Your task to perform on an android device: Open Youtube and go to the subscriptions tab Image 0: 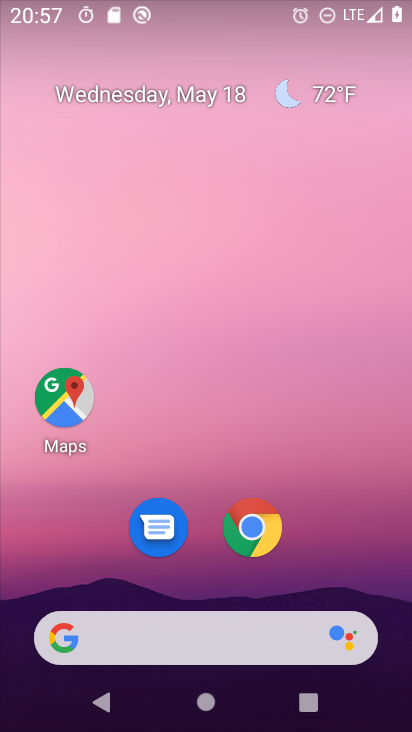
Step 0: drag from (410, 424) to (410, 75)
Your task to perform on an android device: Open Youtube and go to the subscriptions tab Image 1: 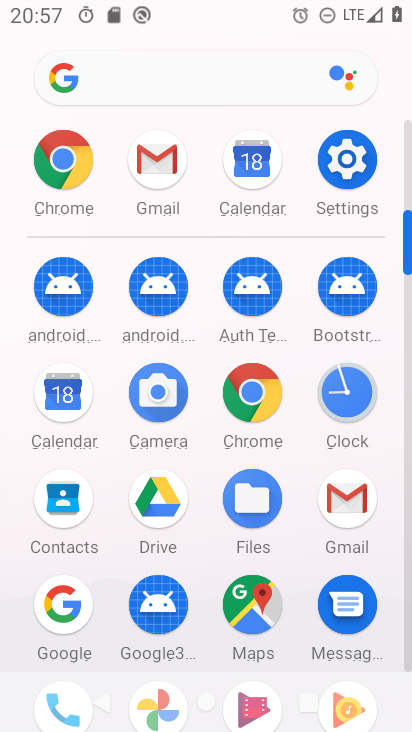
Step 1: drag from (410, 216) to (411, 89)
Your task to perform on an android device: Open Youtube and go to the subscriptions tab Image 2: 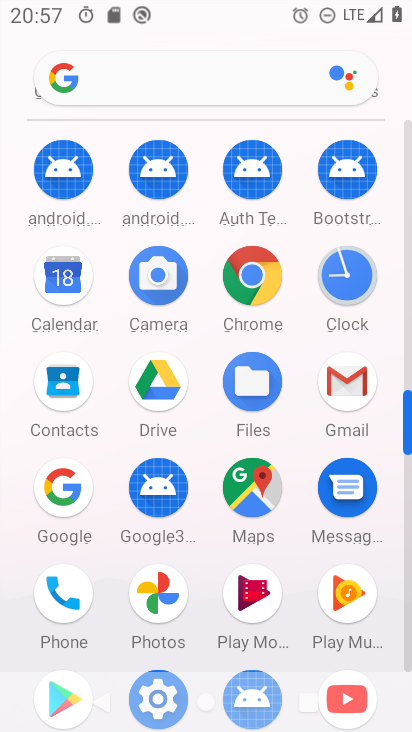
Step 2: drag from (405, 399) to (410, 315)
Your task to perform on an android device: Open Youtube and go to the subscriptions tab Image 3: 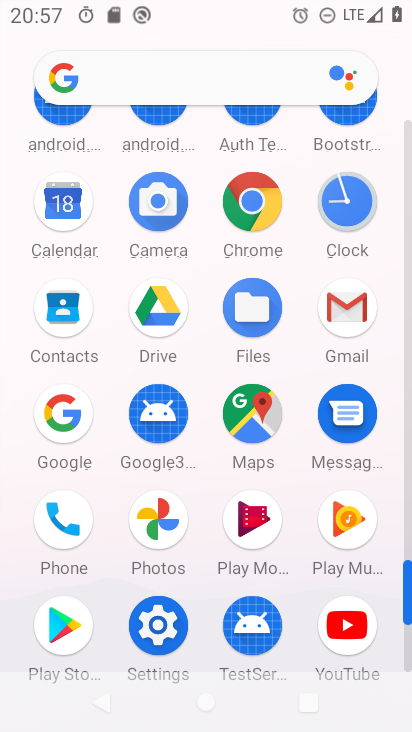
Step 3: click (341, 650)
Your task to perform on an android device: Open Youtube and go to the subscriptions tab Image 4: 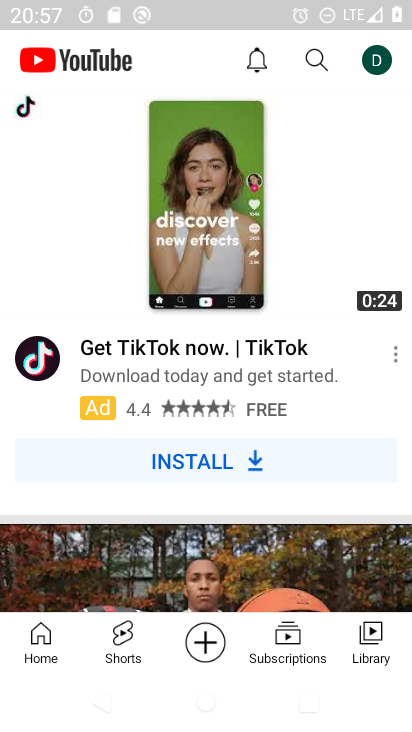
Step 4: click (282, 642)
Your task to perform on an android device: Open Youtube and go to the subscriptions tab Image 5: 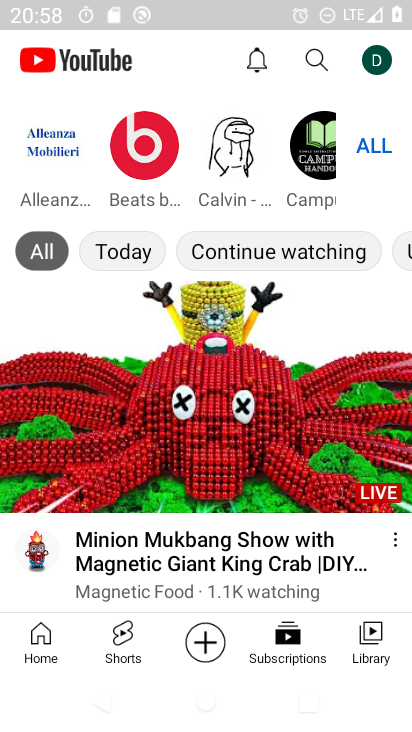
Step 5: task complete